Your task to perform on an android device: turn off location Image 0: 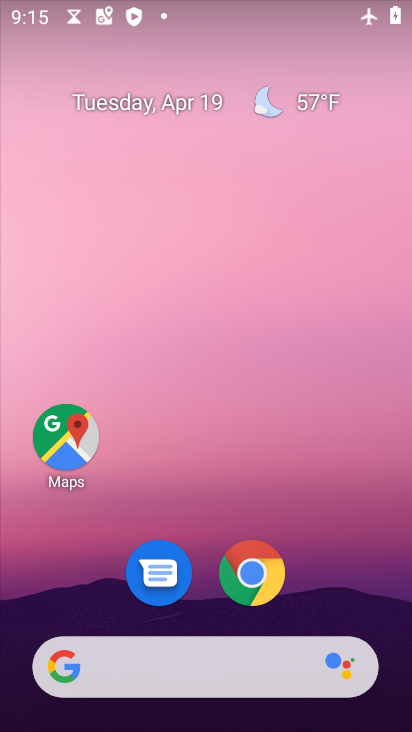
Step 0: drag from (242, 368) to (242, 1)
Your task to perform on an android device: turn off location Image 1: 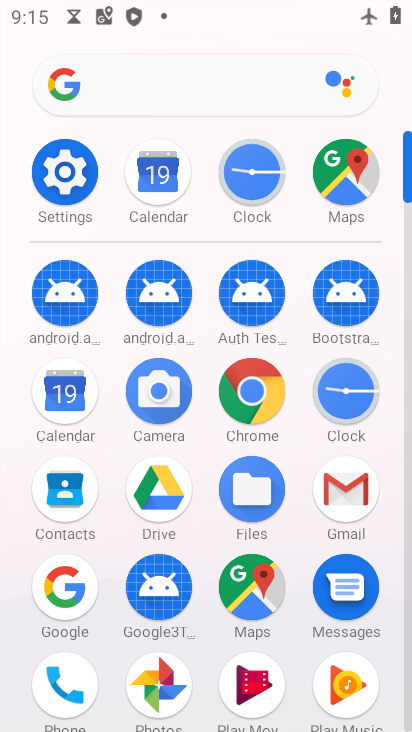
Step 1: click (47, 178)
Your task to perform on an android device: turn off location Image 2: 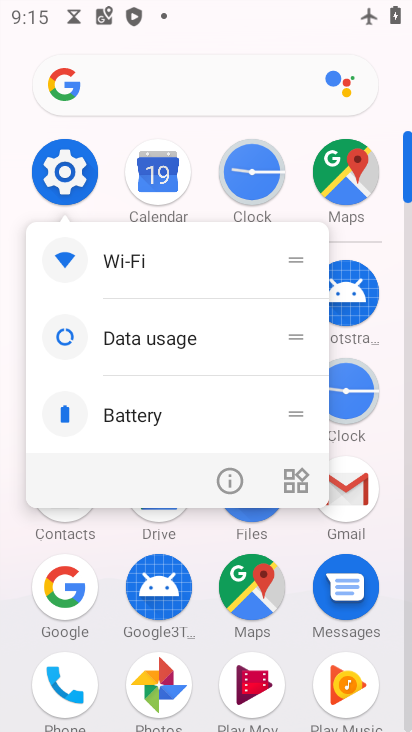
Step 2: click (64, 173)
Your task to perform on an android device: turn off location Image 3: 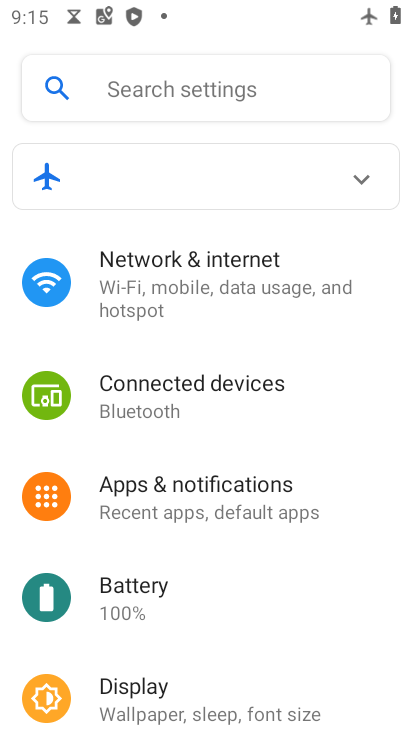
Step 3: drag from (223, 575) to (288, 1)
Your task to perform on an android device: turn off location Image 4: 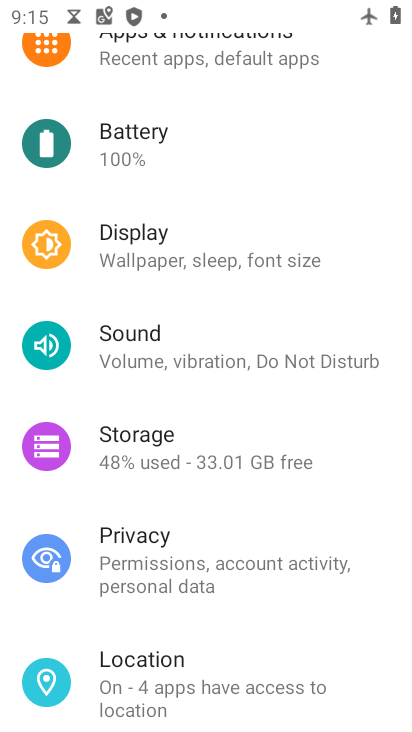
Step 4: click (218, 675)
Your task to perform on an android device: turn off location Image 5: 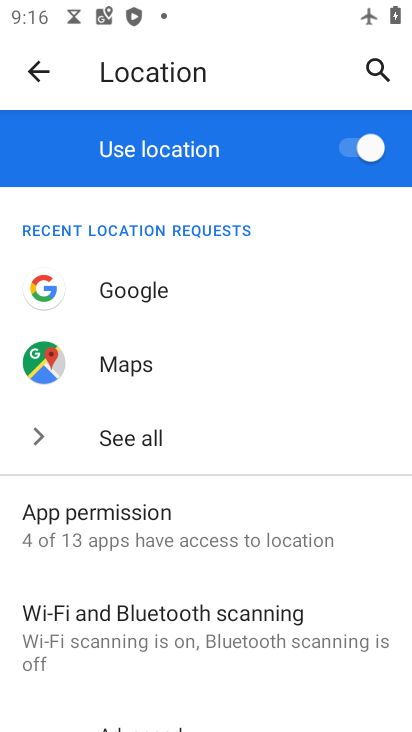
Step 5: click (333, 150)
Your task to perform on an android device: turn off location Image 6: 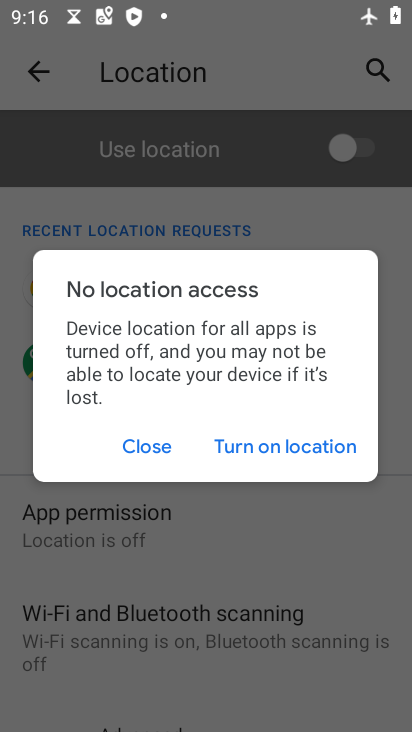
Step 6: click (148, 441)
Your task to perform on an android device: turn off location Image 7: 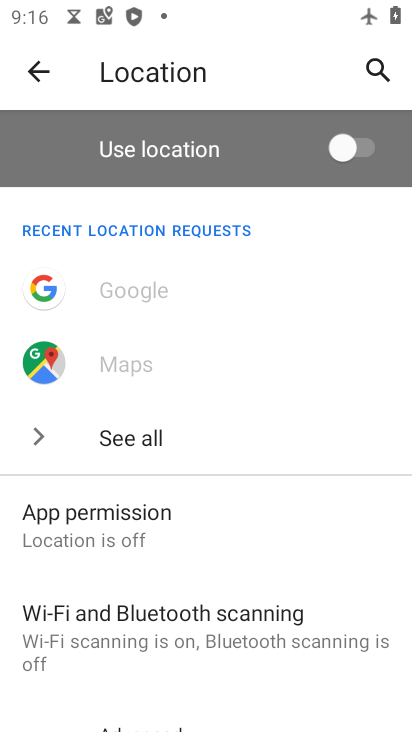
Step 7: task complete